Your task to perform on an android device: show emergency info Image 0: 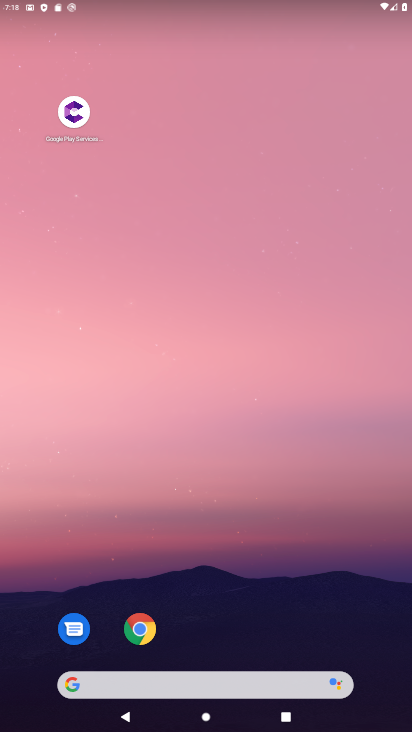
Step 0: drag from (201, 625) to (262, 5)
Your task to perform on an android device: show emergency info Image 1: 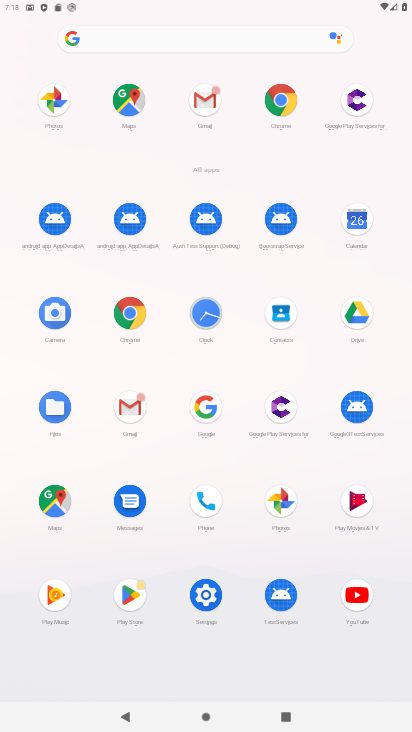
Step 1: click (206, 611)
Your task to perform on an android device: show emergency info Image 2: 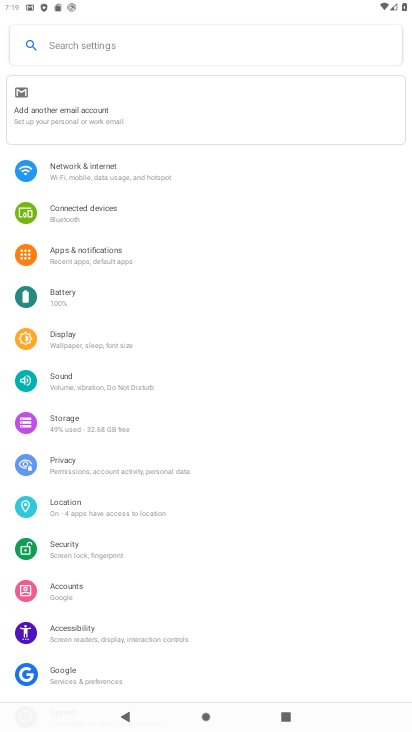
Step 2: drag from (180, 642) to (220, 67)
Your task to perform on an android device: show emergency info Image 3: 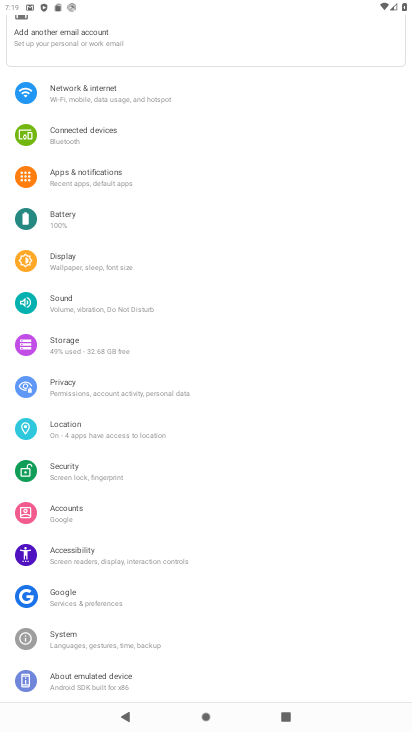
Step 3: click (95, 680)
Your task to perform on an android device: show emergency info Image 4: 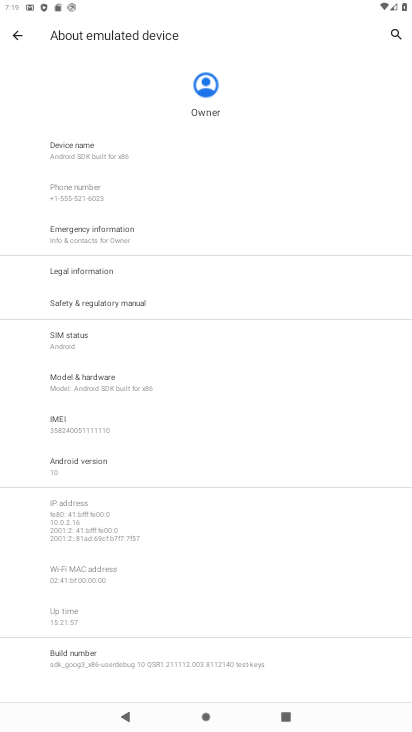
Step 4: click (99, 230)
Your task to perform on an android device: show emergency info Image 5: 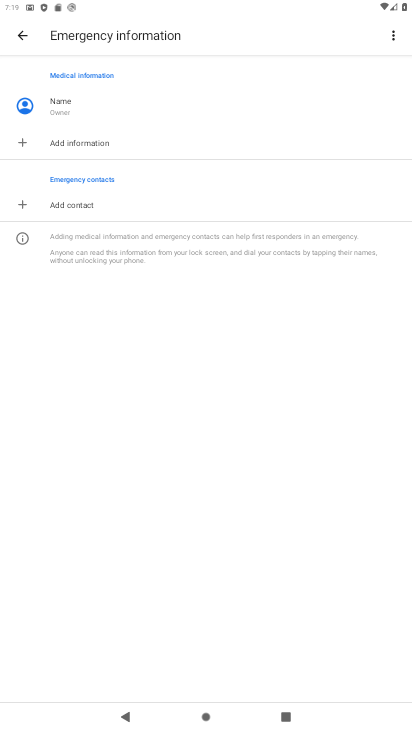
Step 5: task complete